Your task to perform on an android device: turn off sleep mode Image 0: 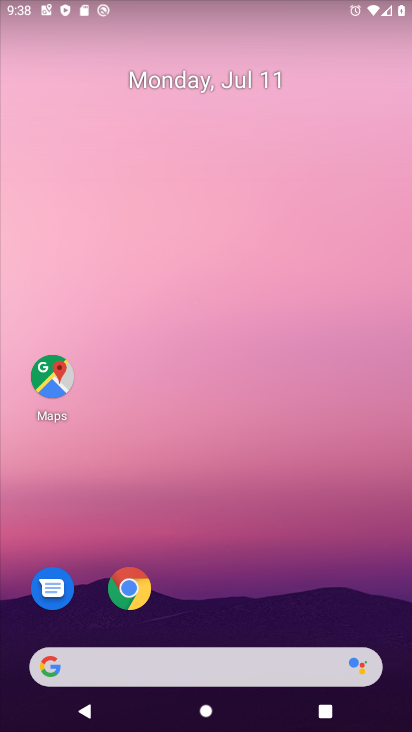
Step 0: drag from (188, 566) to (232, 32)
Your task to perform on an android device: turn off sleep mode Image 1: 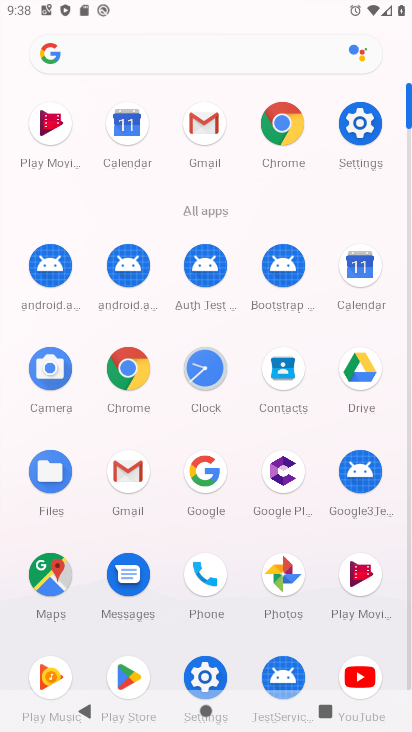
Step 1: click (356, 122)
Your task to perform on an android device: turn off sleep mode Image 2: 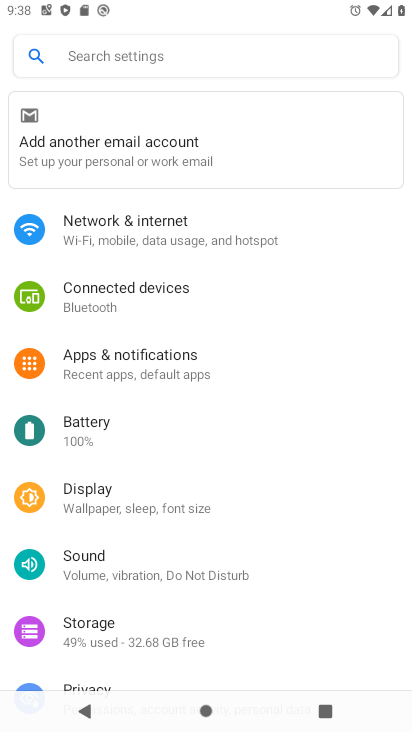
Step 2: click (122, 50)
Your task to perform on an android device: turn off sleep mode Image 3: 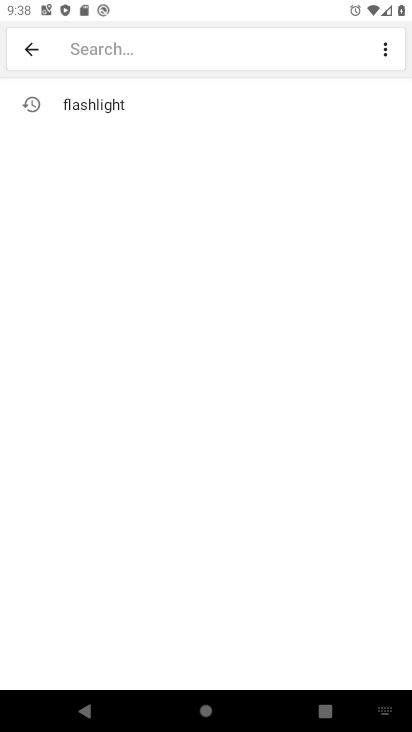
Step 3: type "sleep mode"
Your task to perform on an android device: turn off sleep mode Image 4: 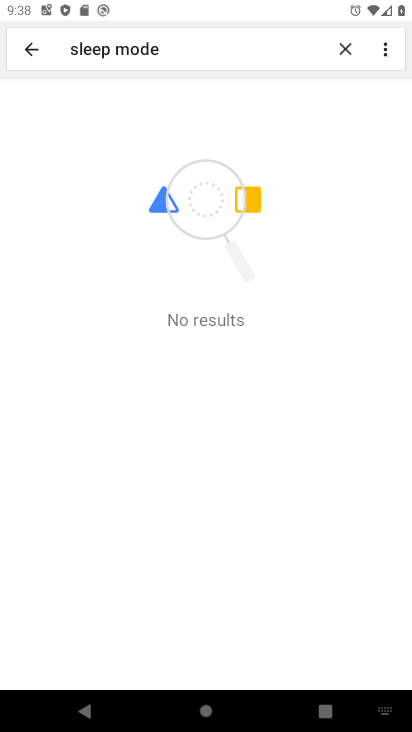
Step 4: task complete